Your task to perform on an android device: Open my contact list Image 0: 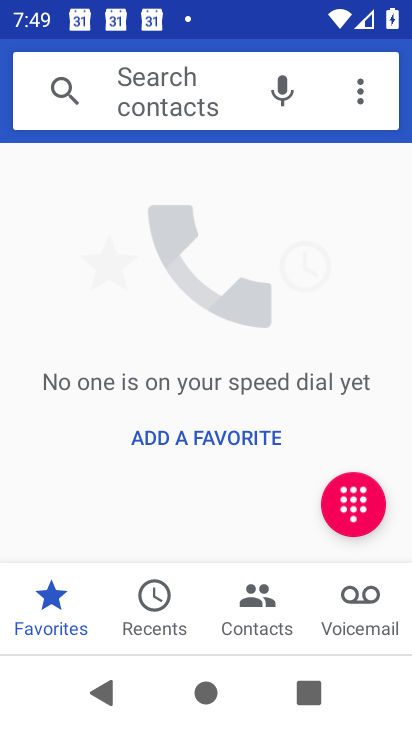
Step 0: click (255, 596)
Your task to perform on an android device: Open my contact list Image 1: 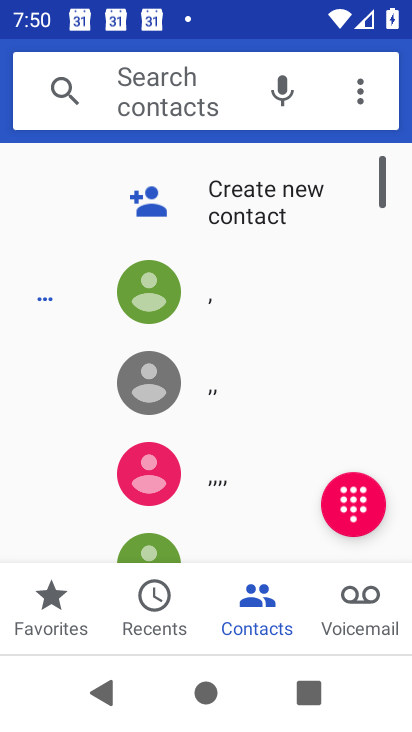
Step 1: task complete